Your task to perform on an android device: turn on the 24-hour format for clock Image 0: 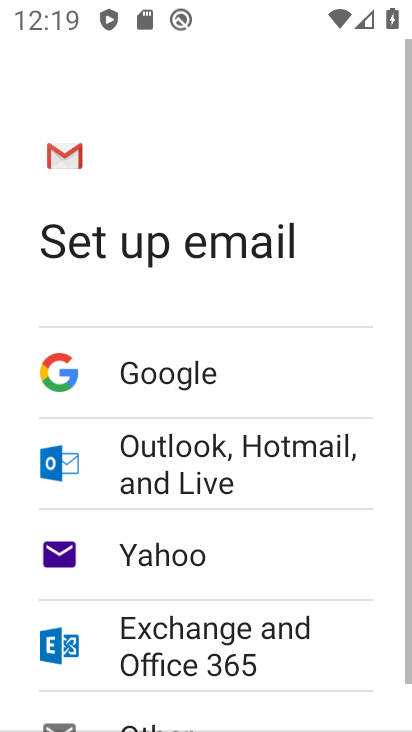
Step 0: press home button
Your task to perform on an android device: turn on the 24-hour format for clock Image 1: 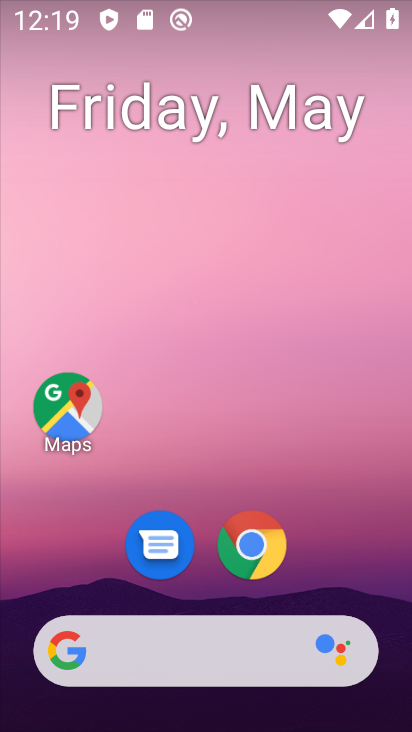
Step 1: drag from (310, 583) to (304, 4)
Your task to perform on an android device: turn on the 24-hour format for clock Image 2: 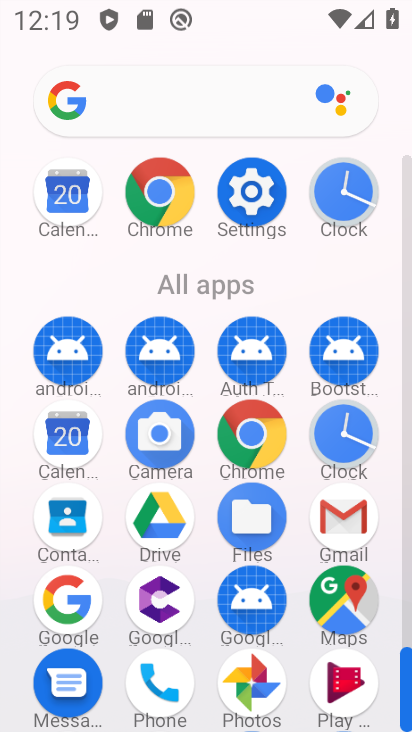
Step 2: click (336, 445)
Your task to perform on an android device: turn on the 24-hour format for clock Image 3: 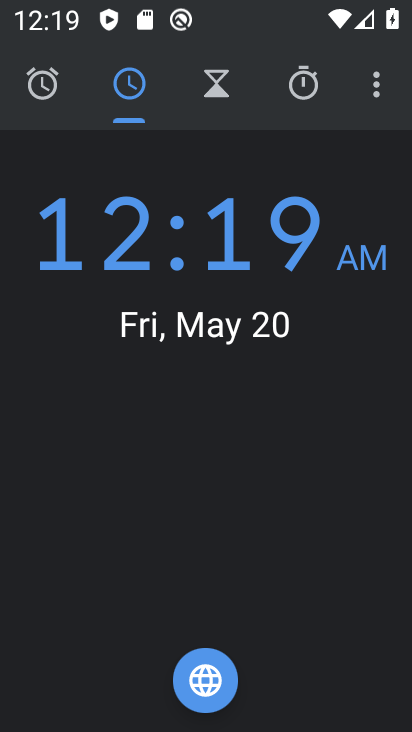
Step 3: click (381, 88)
Your task to perform on an android device: turn on the 24-hour format for clock Image 4: 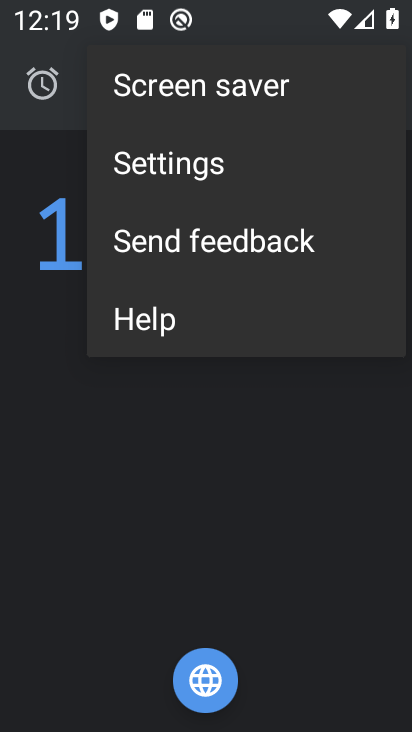
Step 4: click (230, 189)
Your task to perform on an android device: turn on the 24-hour format for clock Image 5: 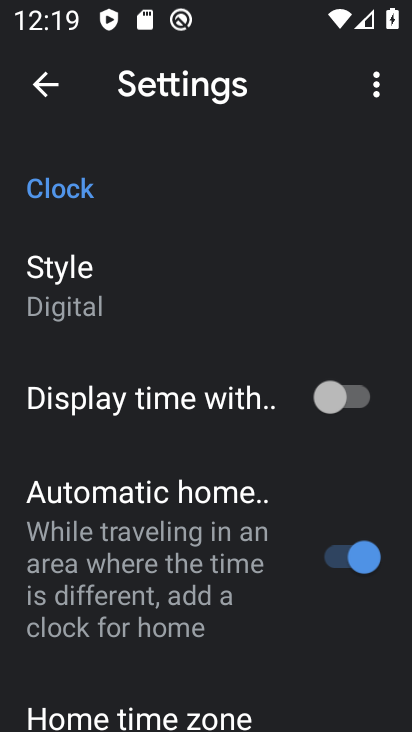
Step 5: drag from (228, 648) to (244, 305)
Your task to perform on an android device: turn on the 24-hour format for clock Image 6: 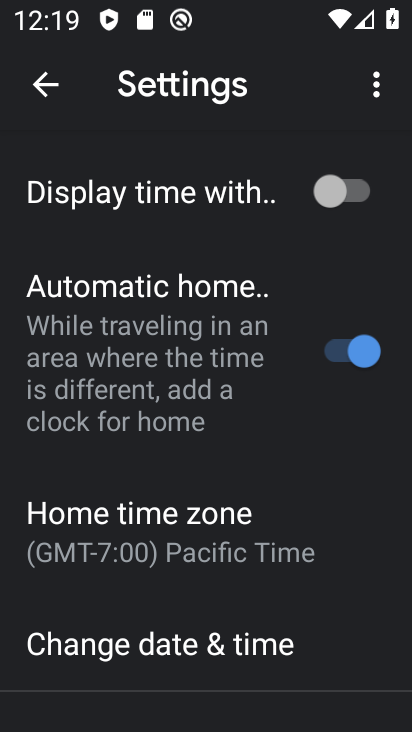
Step 6: click (175, 663)
Your task to perform on an android device: turn on the 24-hour format for clock Image 7: 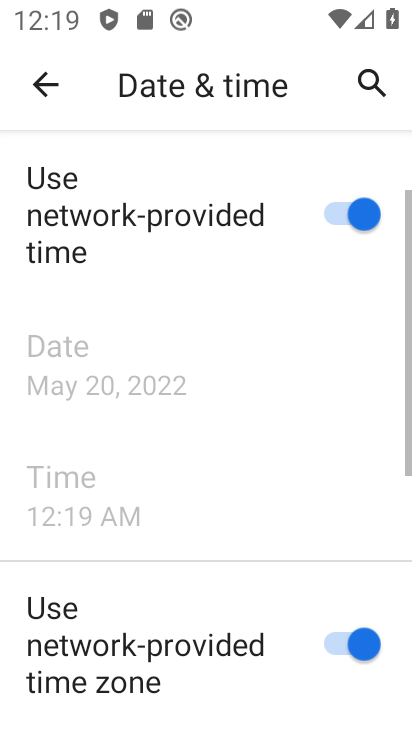
Step 7: drag from (201, 655) to (248, 348)
Your task to perform on an android device: turn on the 24-hour format for clock Image 8: 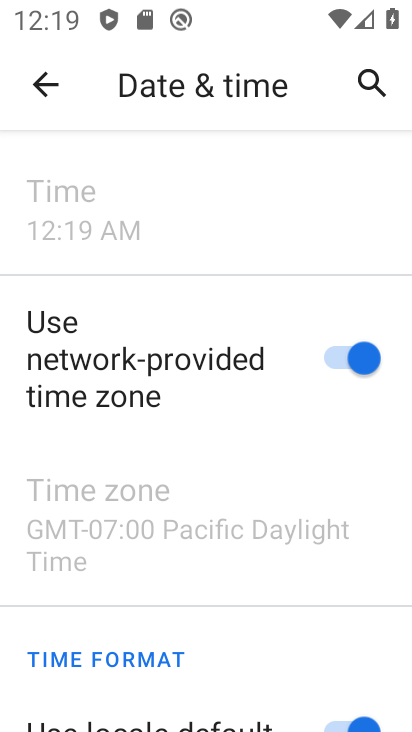
Step 8: drag from (231, 629) to (247, 240)
Your task to perform on an android device: turn on the 24-hour format for clock Image 9: 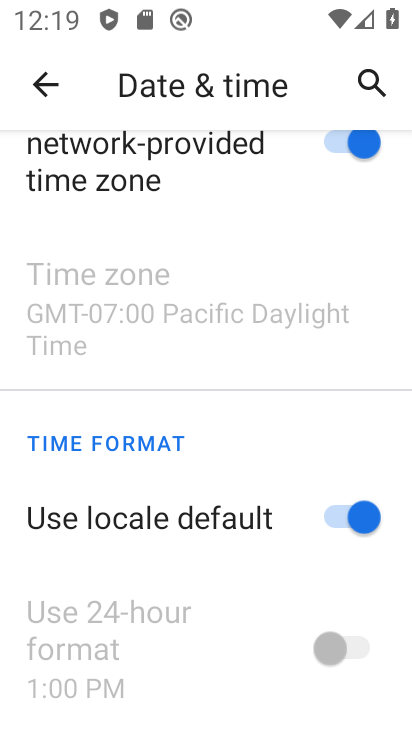
Step 9: drag from (209, 602) to (234, 276)
Your task to perform on an android device: turn on the 24-hour format for clock Image 10: 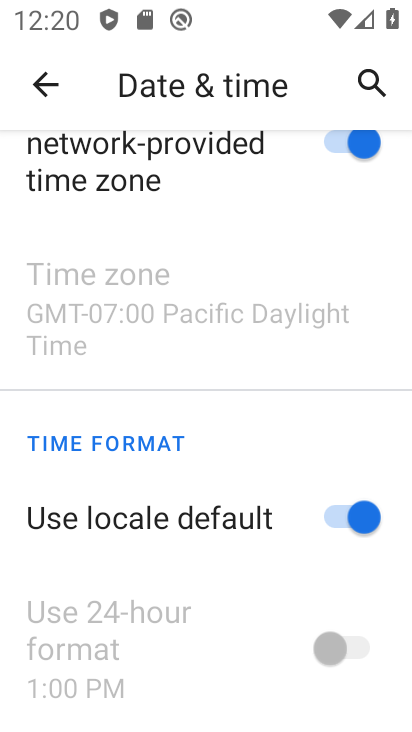
Step 10: drag from (282, 619) to (242, 168)
Your task to perform on an android device: turn on the 24-hour format for clock Image 11: 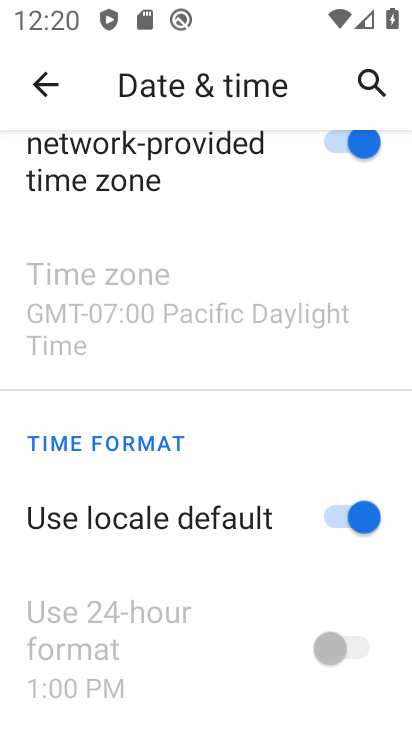
Step 11: click (329, 525)
Your task to perform on an android device: turn on the 24-hour format for clock Image 12: 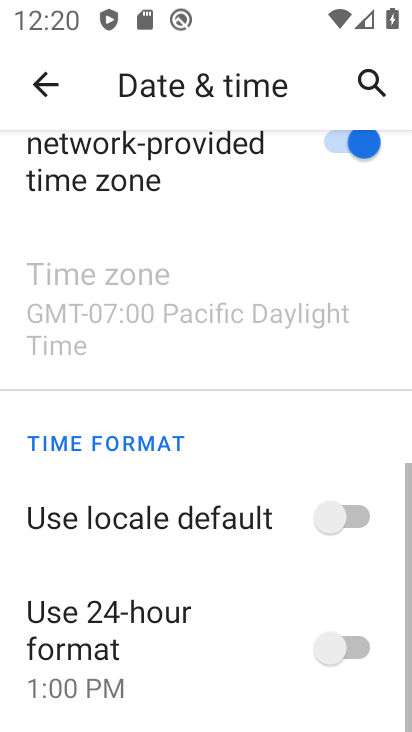
Step 12: click (363, 653)
Your task to perform on an android device: turn on the 24-hour format for clock Image 13: 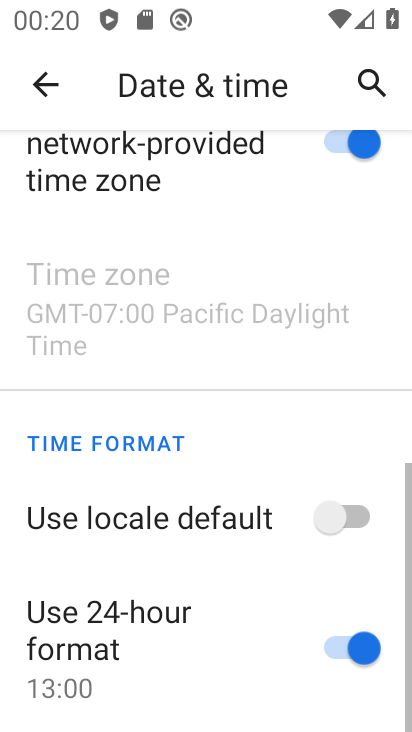
Step 13: task complete